Your task to perform on an android device: Search for pizza restaurants on Maps Image 0: 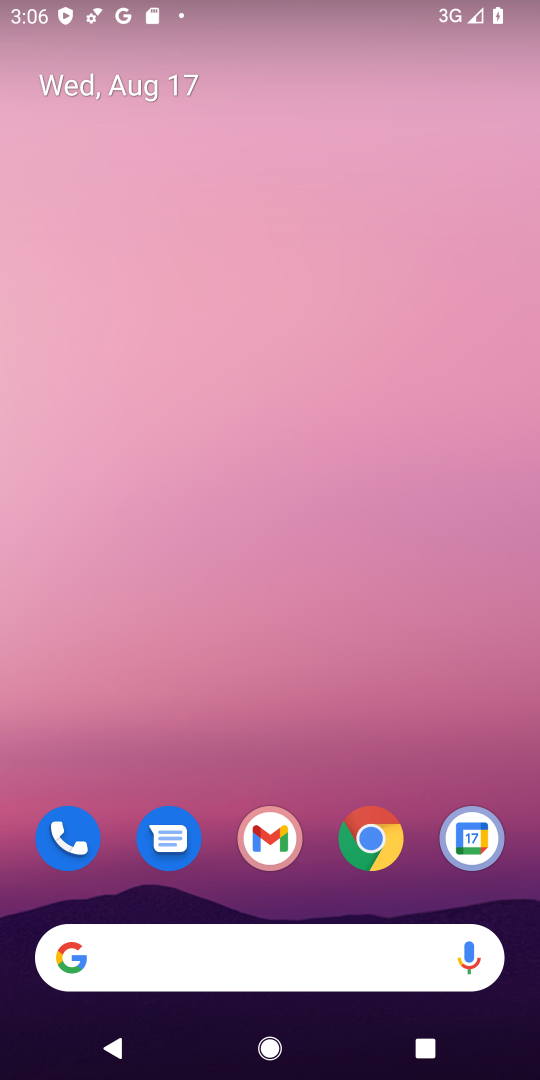
Step 0: drag from (250, 871) to (361, 227)
Your task to perform on an android device: Search for pizza restaurants on Maps Image 1: 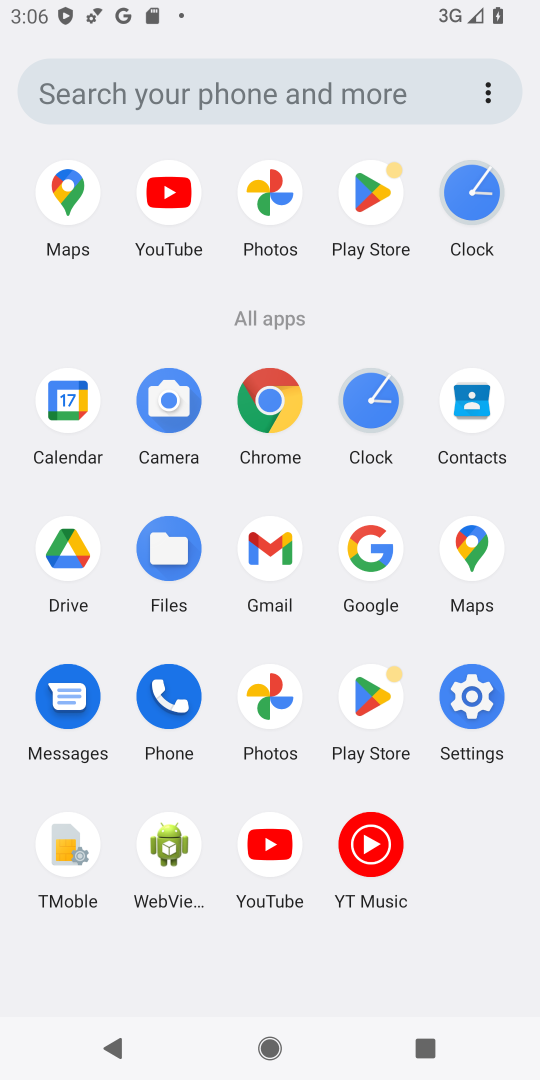
Step 1: click (71, 190)
Your task to perform on an android device: Search for pizza restaurants on Maps Image 2: 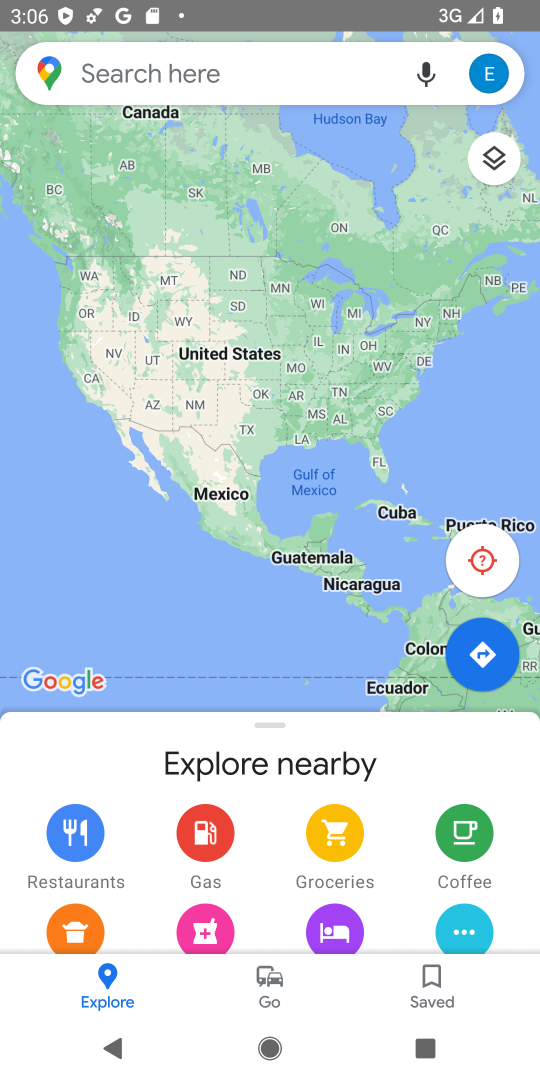
Step 2: click (244, 68)
Your task to perform on an android device: Search for pizza restaurants on Maps Image 3: 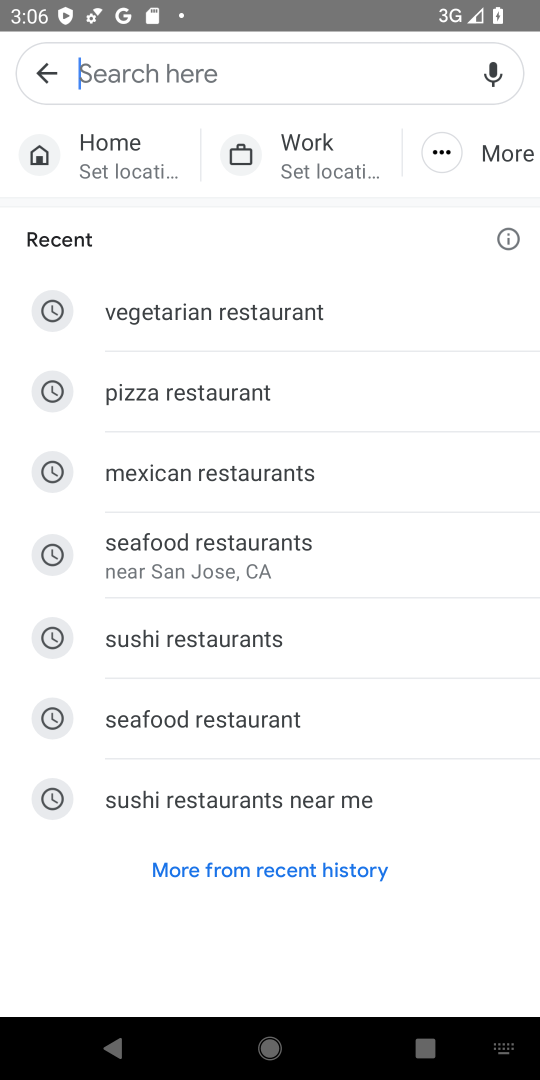
Step 3: click (174, 393)
Your task to perform on an android device: Search for pizza restaurants on Maps Image 4: 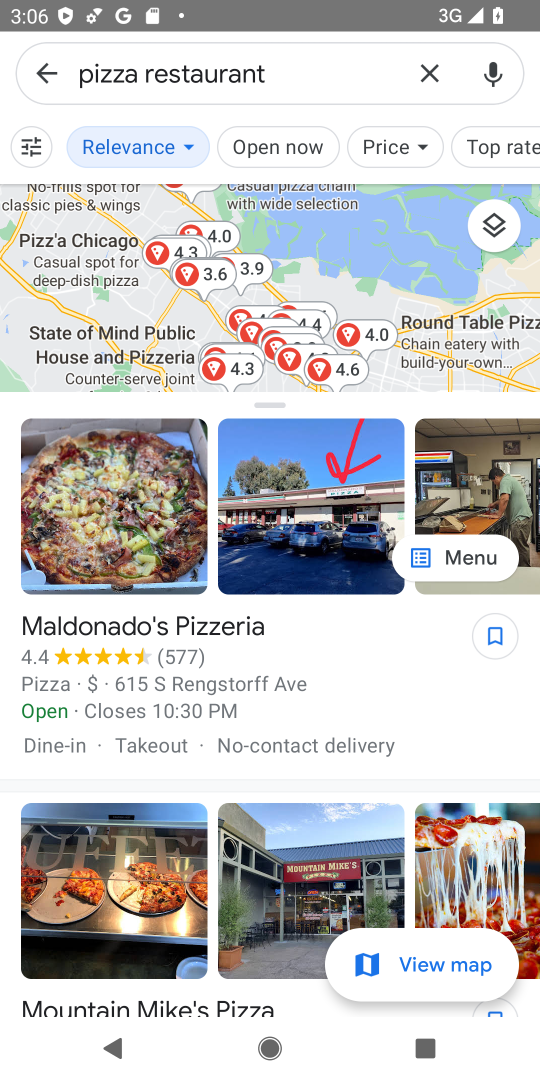
Step 4: task complete